Your task to perform on an android device: Open ESPN.com Image 0: 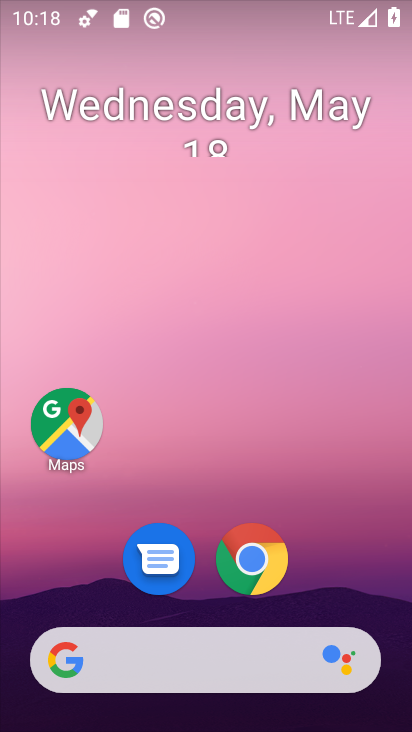
Step 0: click (249, 550)
Your task to perform on an android device: Open ESPN.com Image 1: 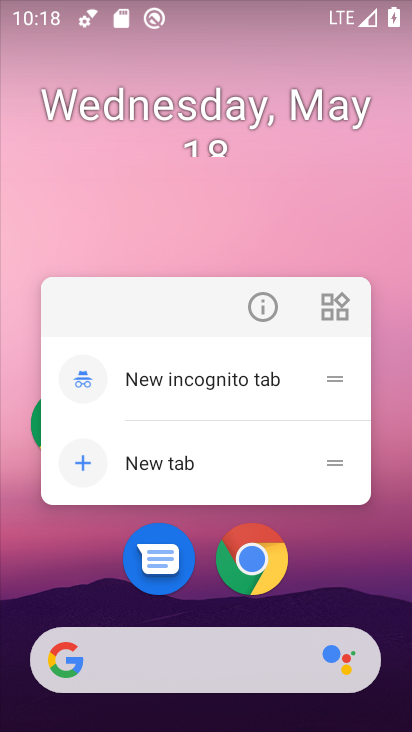
Step 1: click (258, 543)
Your task to perform on an android device: Open ESPN.com Image 2: 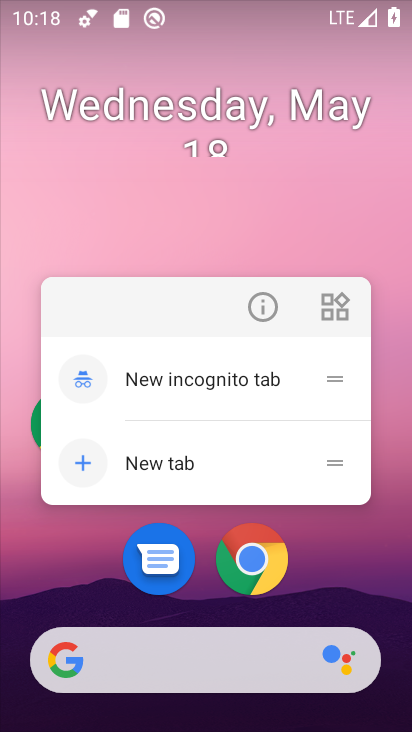
Step 2: click (258, 543)
Your task to perform on an android device: Open ESPN.com Image 3: 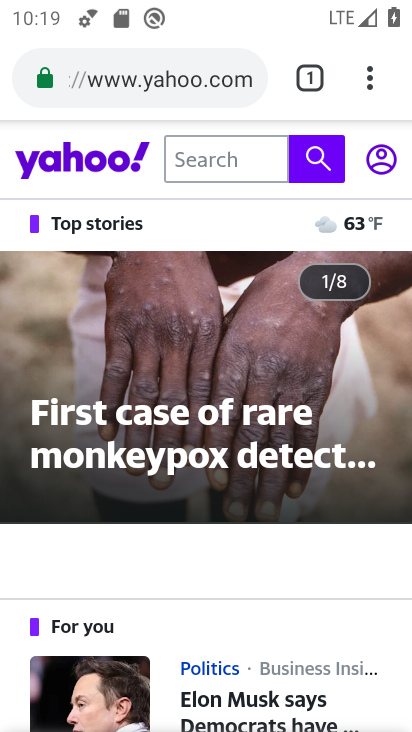
Step 3: click (200, 63)
Your task to perform on an android device: Open ESPN.com Image 4: 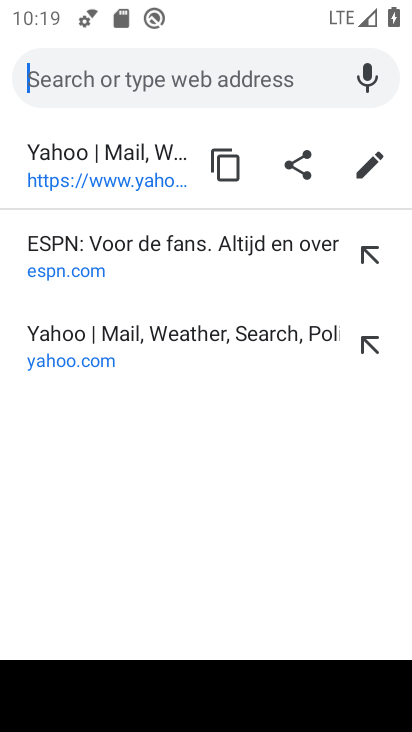
Step 4: type "ESPN.com"
Your task to perform on an android device: Open ESPN.com Image 5: 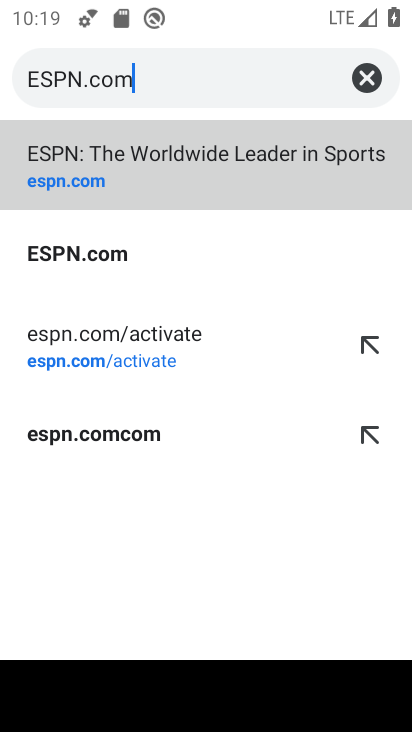
Step 5: click (157, 260)
Your task to perform on an android device: Open ESPN.com Image 6: 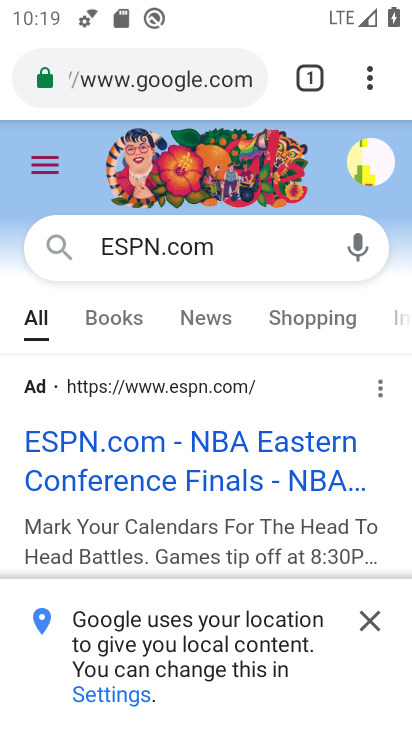
Step 6: task complete